Your task to perform on an android device: move an email to a new category in the gmail app Image 0: 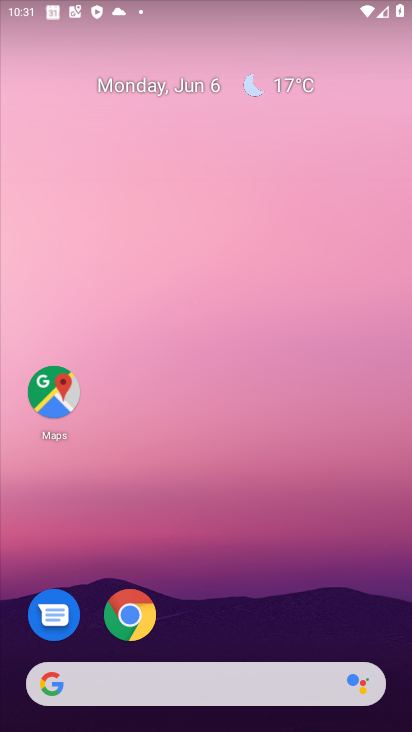
Step 0: click (295, 84)
Your task to perform on an android device: move an email to a new category in the gmail app Image 1: 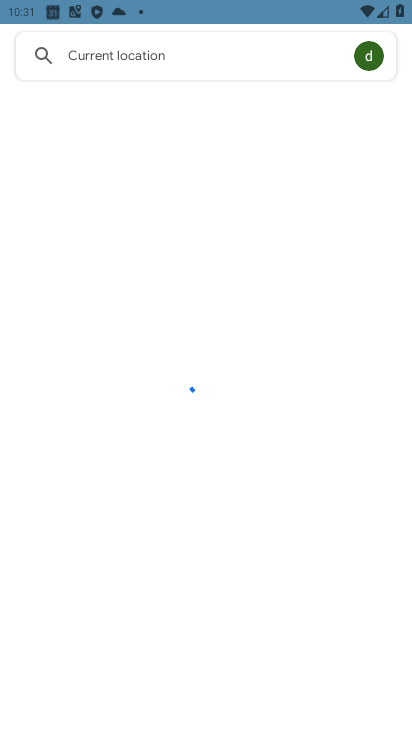
Step 1: press back button
Your task to perform on an android device: move an email to a new category in the gmail app Image 2: 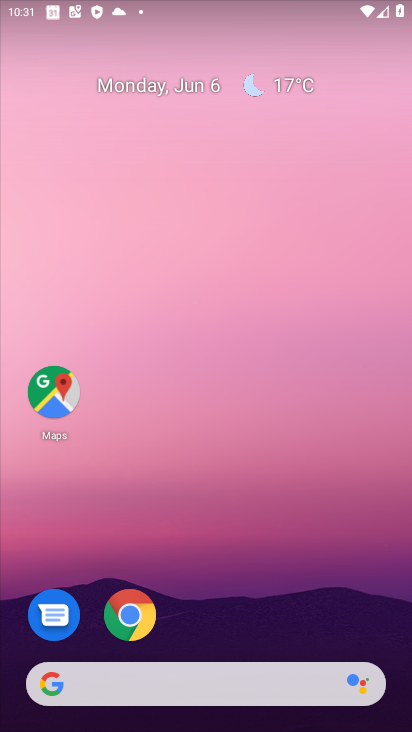
Step 2: drag from (274, 618) to (274, 82)
Your task to perform on an android device: move an email to a new category in the gmail app Image 3: 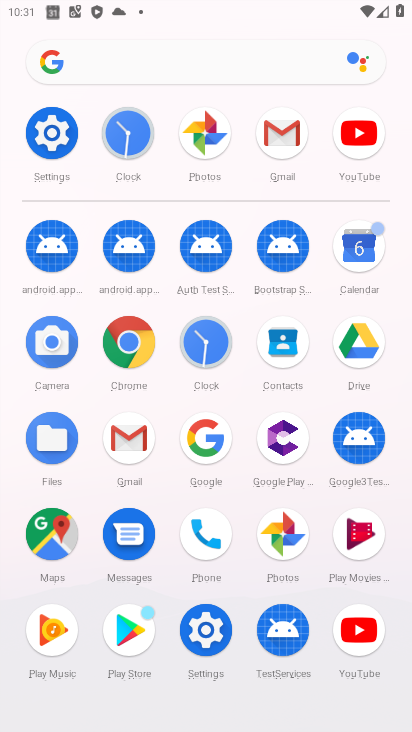
Step 3: click (288, 135)
Your task to perform on an android device: move an email to a new category in the gmail app Image 4: 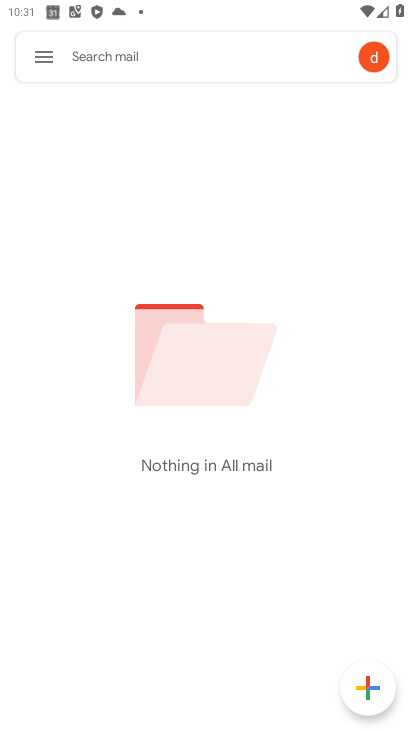
Step 4: task complete